Your task to perform on an android device: Open CNN.com Image 0: 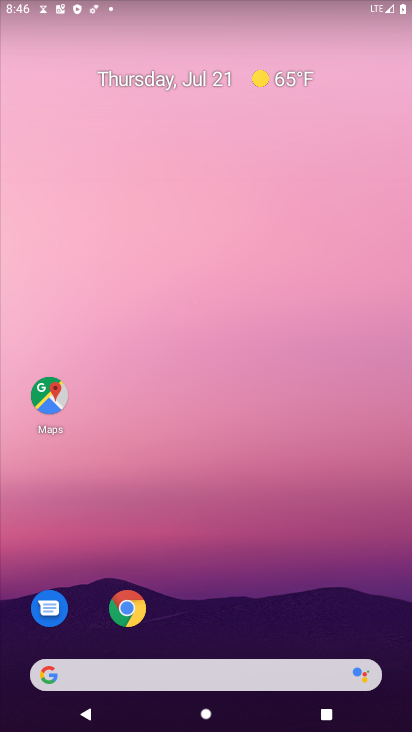
Step 0: click (128, 608)
Your task to perform on an android device: Open CNN.com Image 1: 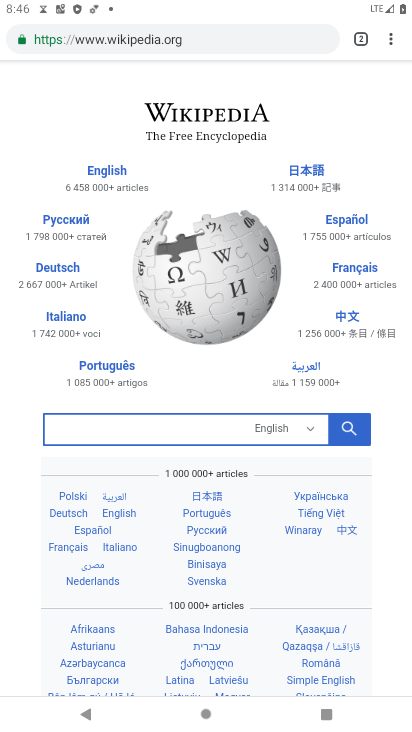
Step 1: click (205, 46)
Your task to perform on an android device: Open CNN.com Image 2: 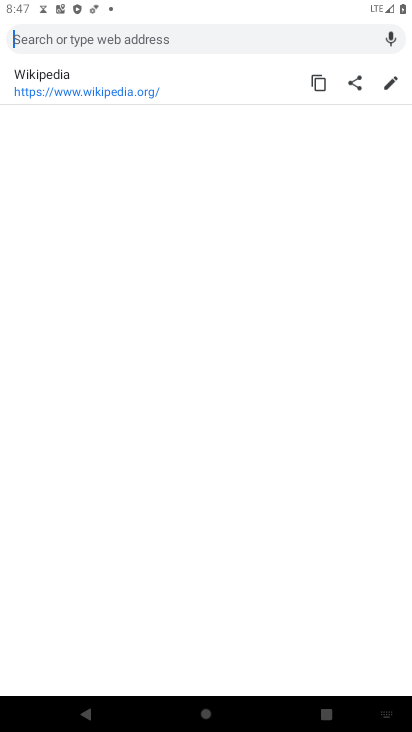
Step 2: type "CNN.com"
Your task to perform on an android device: Open CNN.com Image 3: 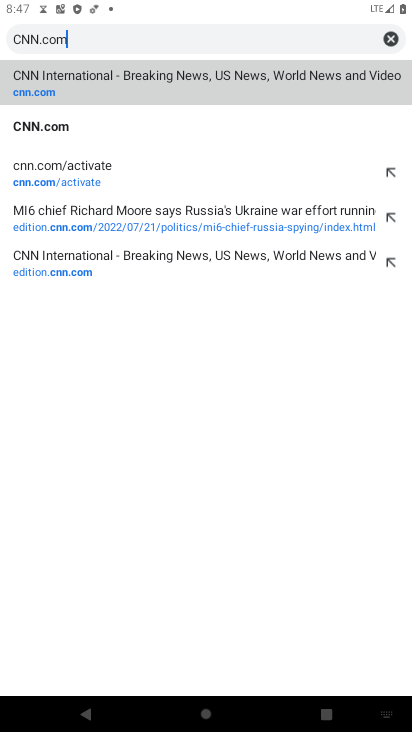
Step 3: click (55, 123)
Your task to perform on an android device: Open CNN.com Image 4: 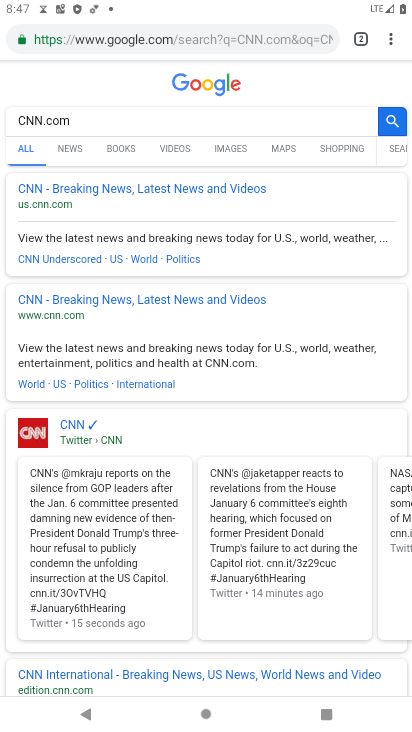
Step 4: click (103, 187)
Your task to perform on an android device: Open CNN.com Image 5: 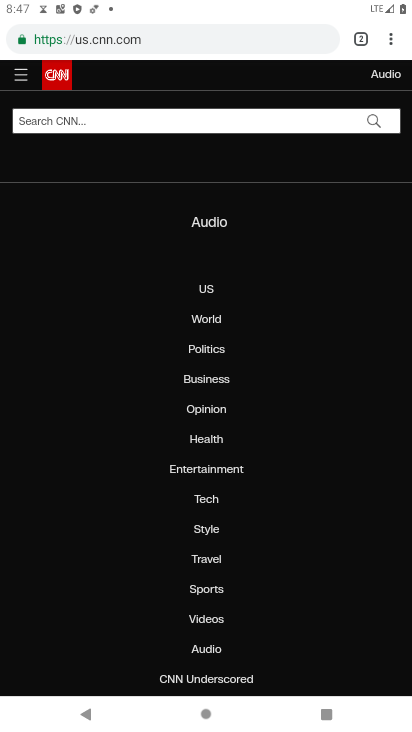
Step 5: task complete